Your task to perform on an android device: turn on wifi Image 0: 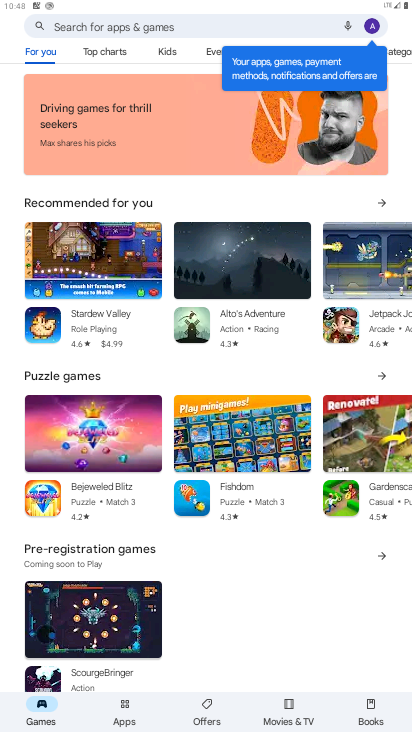
Step 0: drag from (305, 1) to (271, 455)
Your task to perform on an android device: turn on wifi Image 1: 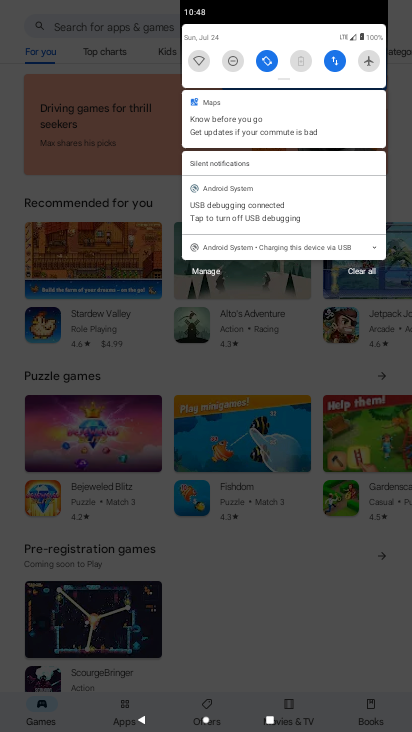
Step 1: click (192, 52)
Your task to perform on an android device: turn on wifi Image 2: 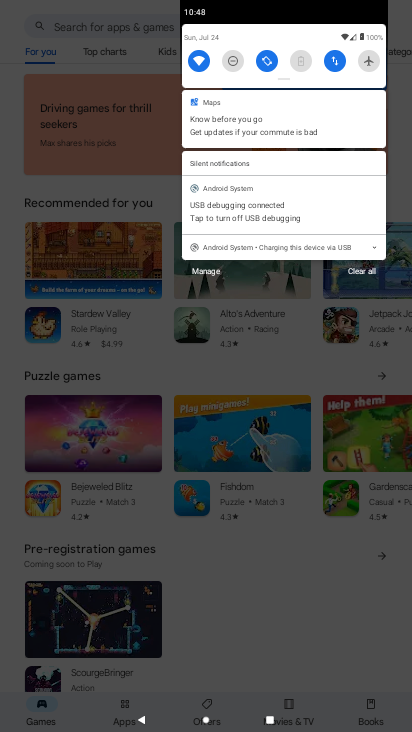
Step 2: task complete